Your task to perform on an android device: change keyboard looks Image 0: 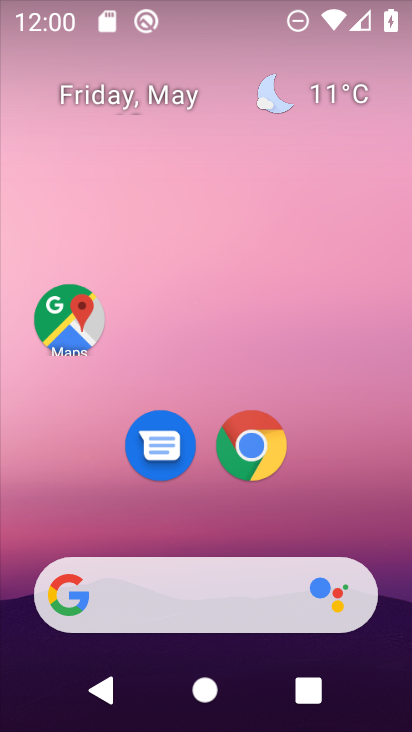
Step 0: drag from (227, 563) to (113, 4)
Your task to perform on an android device: change keyboard looks Image 1: 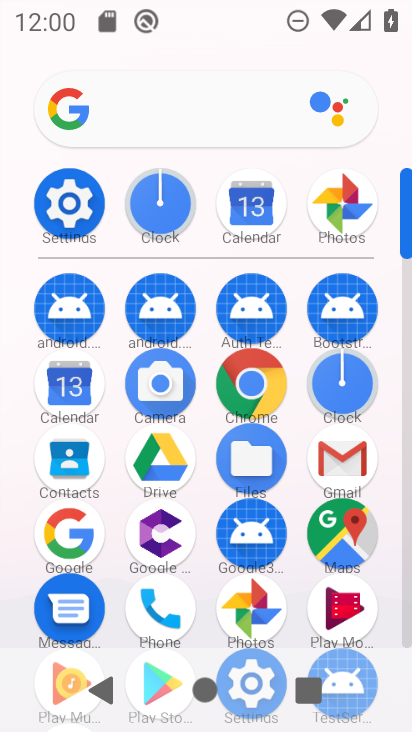
Step 1: click (76, 201)
Your task to perform on an android device: change keyboard looks Image 2: 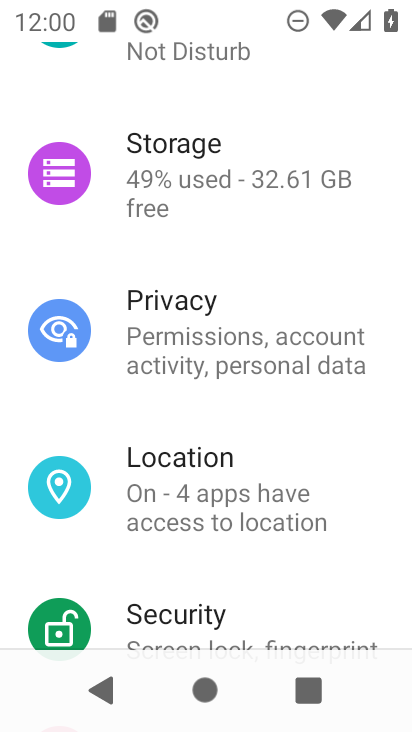
Step 2: drag from (143, 461) to (100, 1)
Your task to perform on an android device: change keyboard looks Image 3: 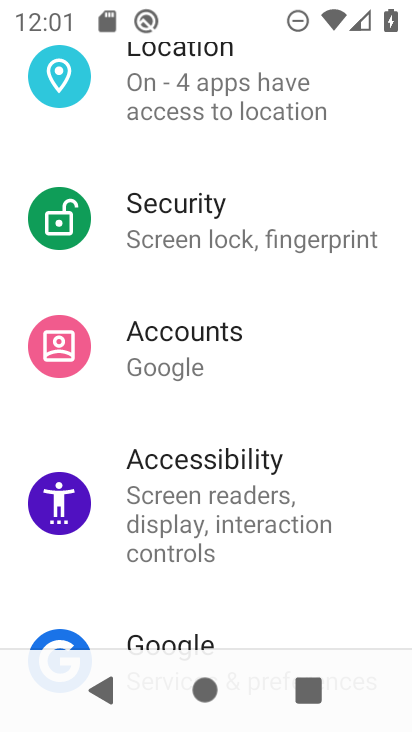
Step 3: drag from (221, 506) to (122, 18)
Your task to perform on an android device: change keyboard looks Image 4: 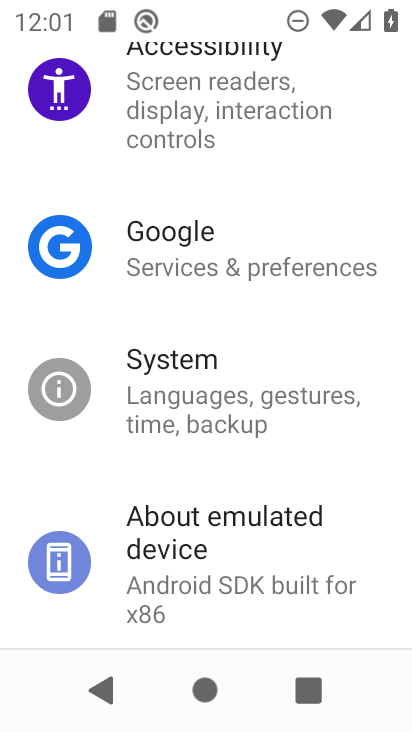
Step 4: click (195, 440)
Your task to perform on an android device: change keyboard looks Image 5: 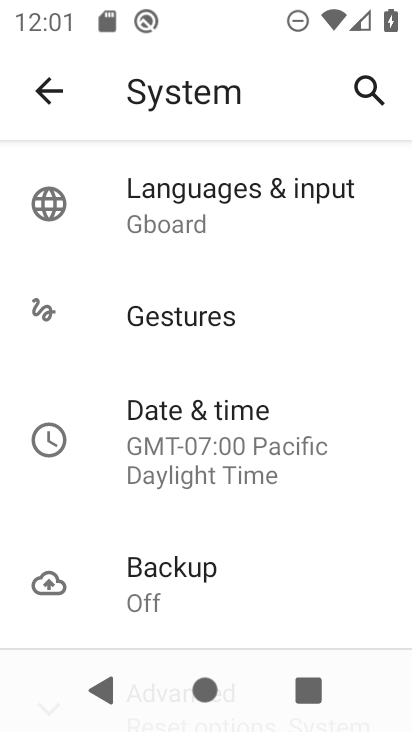
Step 5: click (149, 223)
Your task to perform on an android device: change keyboard looks Image 6: 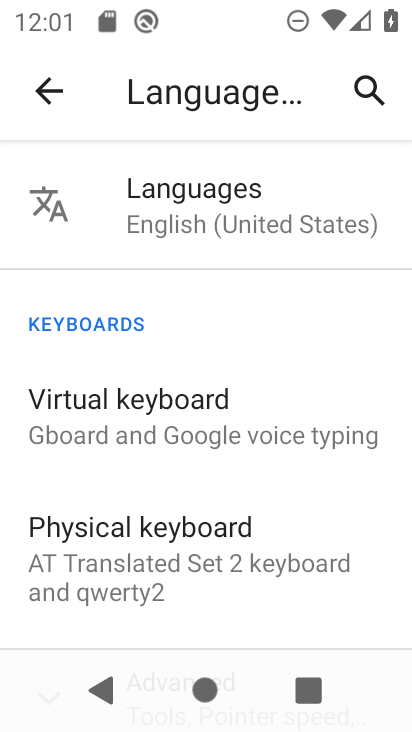
Step 6: click (149, 430)
Your task to perform on an android device: change keyboard looks Image 7: 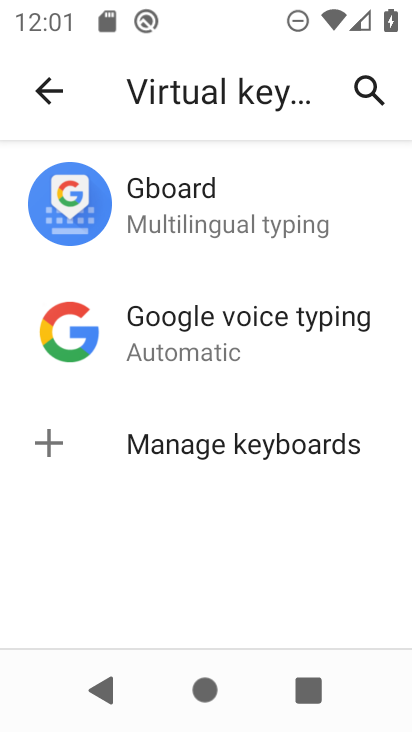
Step 7: click (174, 224)
Your task to perform on an android device: change keyboard looks Image 8: 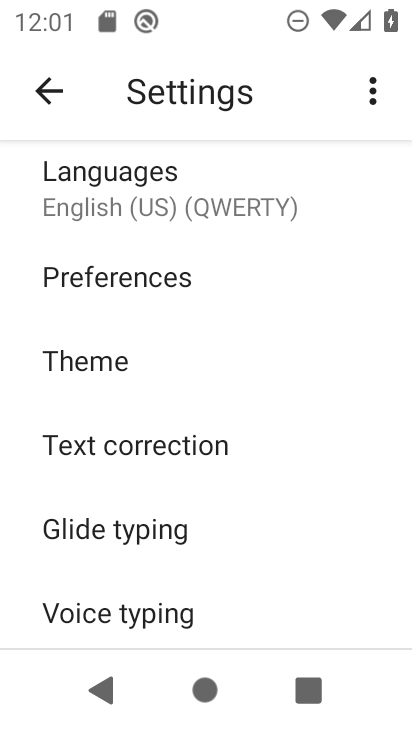
Step 8: click (132, 327)
Your task to perform on an android device: change keyboard looks Image 9: 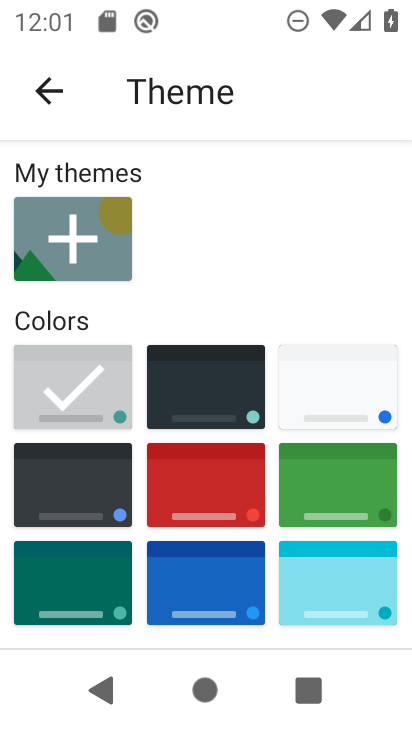
Step 9: click (253, 400)
Your task to perform on an android device: change keyboard looks Image 10: 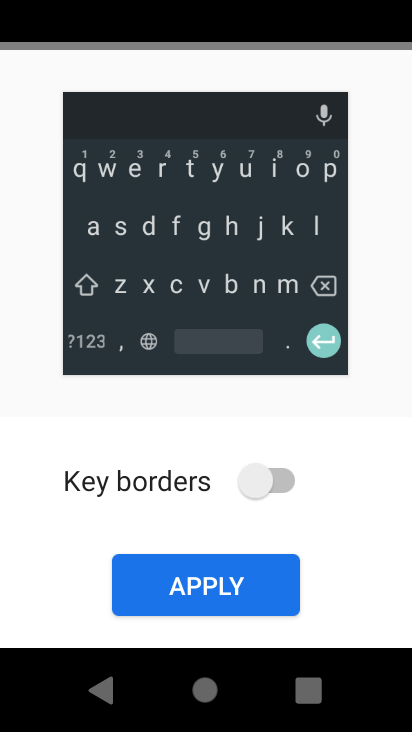
Step 10: task complete